Your task to perform on an android device: Open battery settings Image 0: 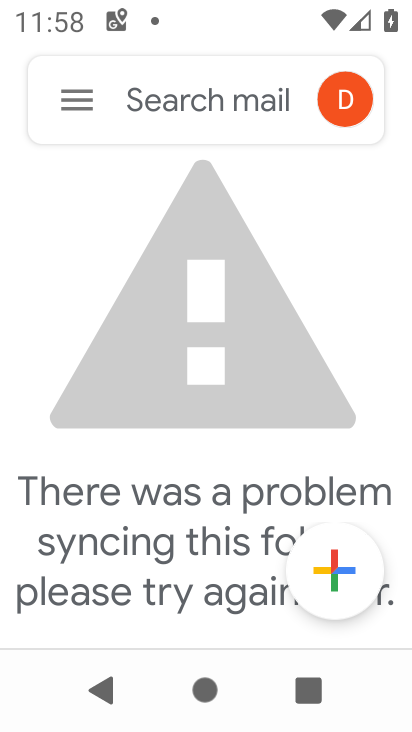
Step 0: press home button
Your task to perform on an android device: Open battery settings Image 1: 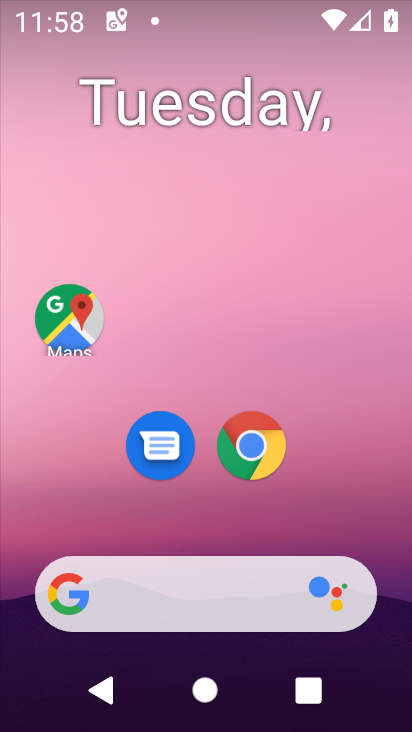
Step 1: drag from (234, 727) to (236, 131)
Your task to perform on an android device: Open battery settings Image 2: 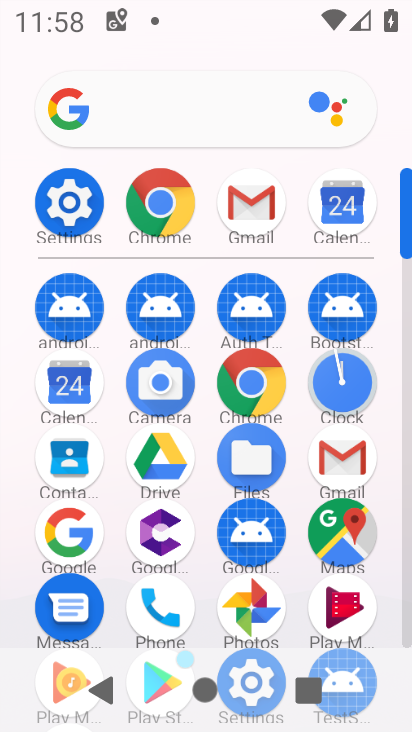
Step 2: click (74, 202)
Your task to perform on an android device: Open battery settings Image 3: 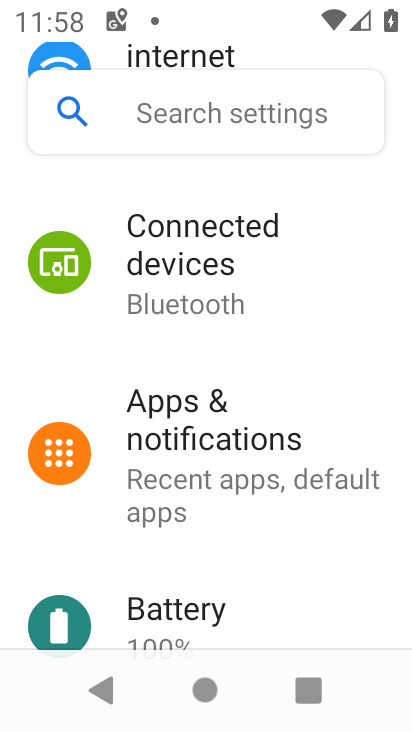
Step 3: click (174, 620)
Your task to perform on an android device: Open battery settings Image 4: 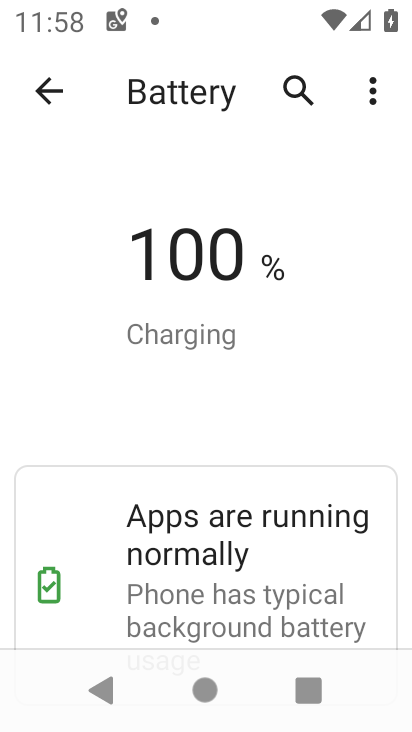
Step 4: task complete